Your task to perform on an android device: Open location settings Image 0: 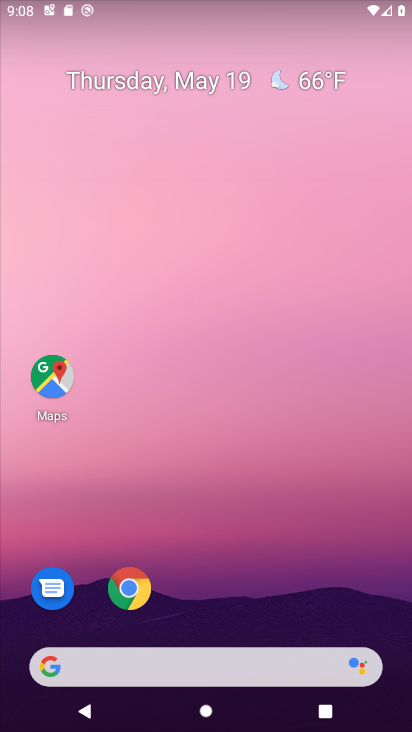
Step 0: drag from (372, 606) to (365, 275)
Your task to perform on an android device: Open location settings Image 1: 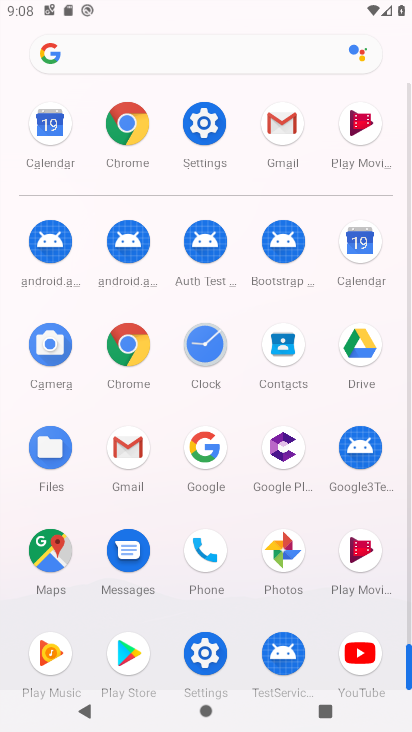
Step 1: drag from (239, 607) to (227, 455)
Your task to perform on an android device: Open location settings Image 2: 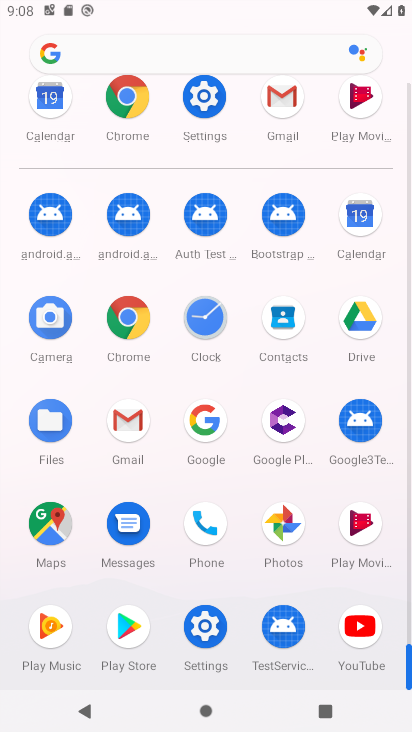
Step 2: click (219, 629)
Your task to perform on an android device: Open location settings Image 3: 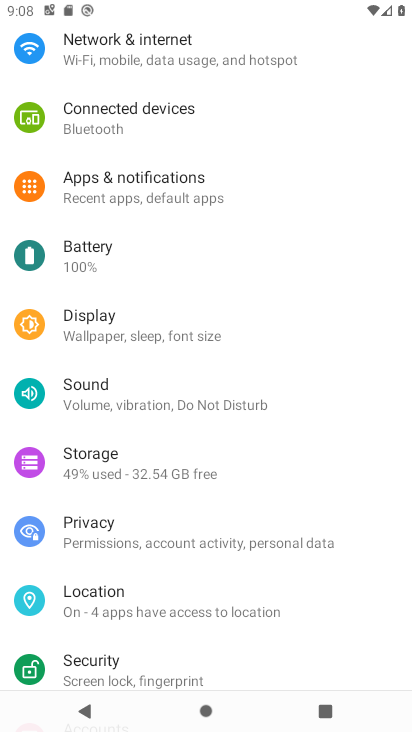
Step 3: drag from (359, 350) to (340, 447)
Your task to perform on an android device: Open location settings Image 4: 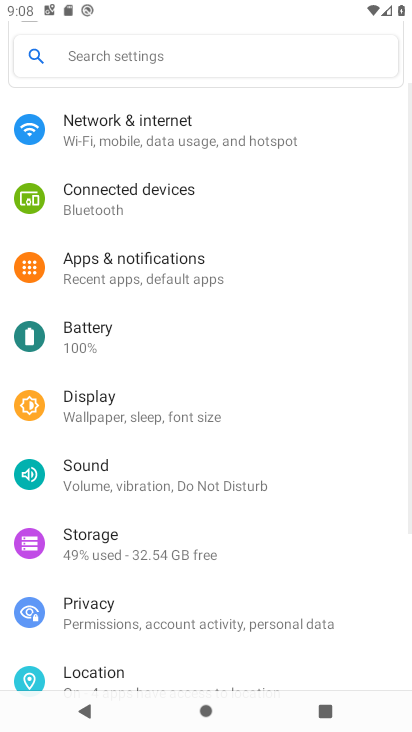
Step 4: drag from (340, 294) to (333, 418)
Your task to perform on an android device: Open location settings Image 5: 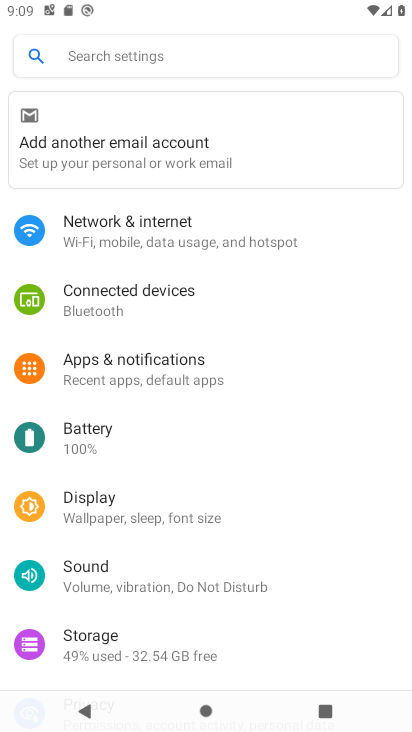
Step 5: drag from (343, 262) to (329, 416)
Your task to perform on an android device: Open location settings Image 6: 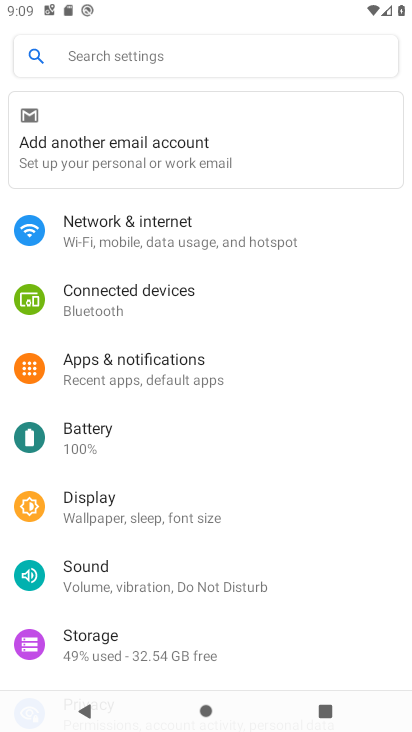
Step 6: drag from (346, 523) to (344, 421)
Your task to perform on an android device: Open location settings Image 7: 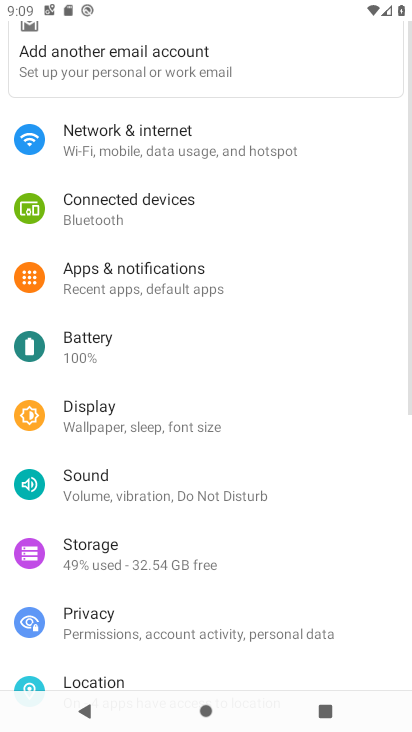
Step 7: drag from (343, 587) to (352, 460)
Your task to perform on an android device: Open location settings Image 8: 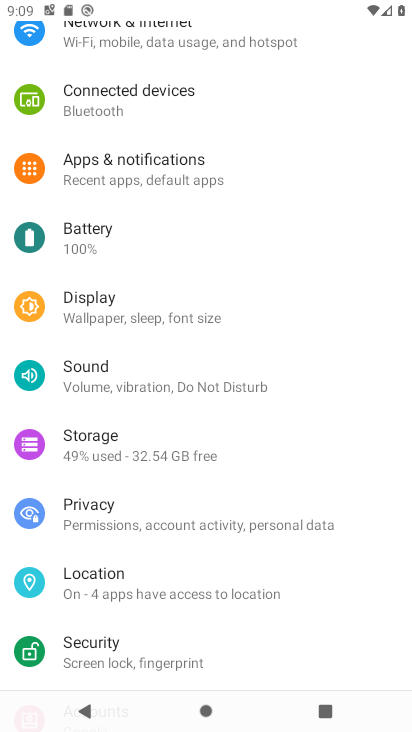
Step 8: drag from (371, 633) to (375, 497)
Your task to perform on an android device: Open location settings Image 9: 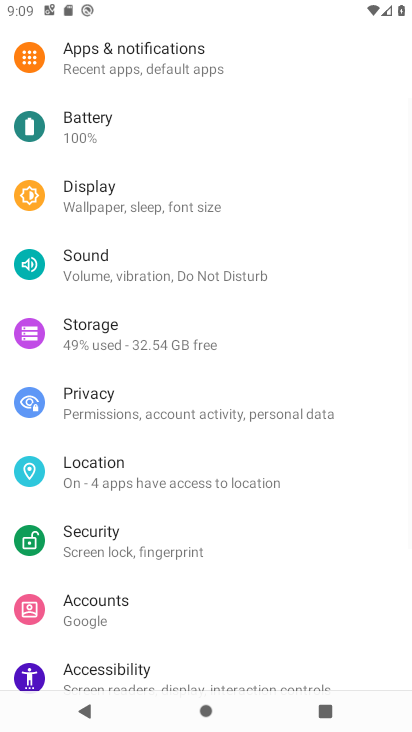
Step 9: drag from (358, 624) to (349, 507)
Your task to perform on an android device: Open location settings Image 10: 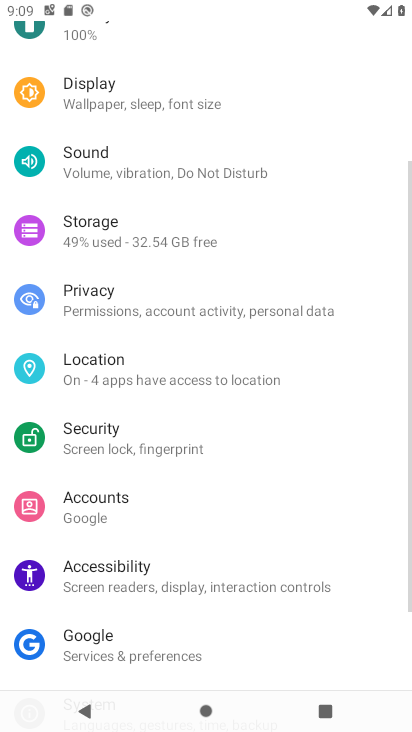
Step 10: drag from (346, 631) to (363, 505)
Your task to perform on an android device: Open location settings Image 11: 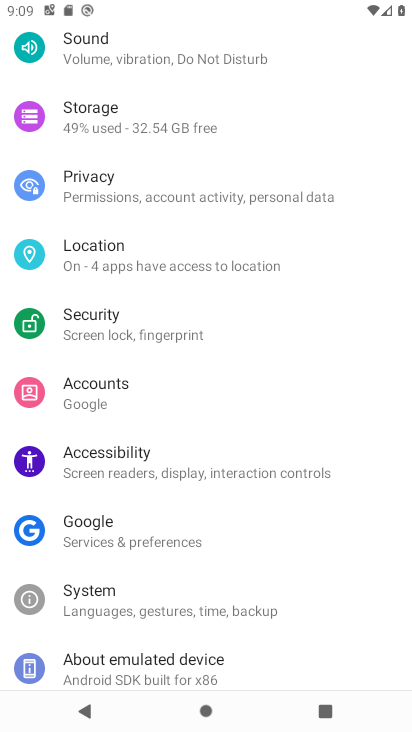
Step 11: drag from (371, 617) to (367, 496)
Your task to perform on an android device: Open location settings Image 12: 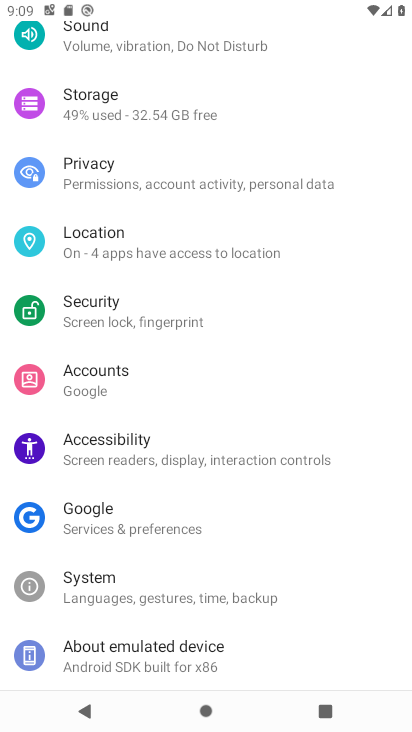
Step 12: drag from (349, 381) to (345, 526)
Your task to perform on an android device: Open location settings Image 13: 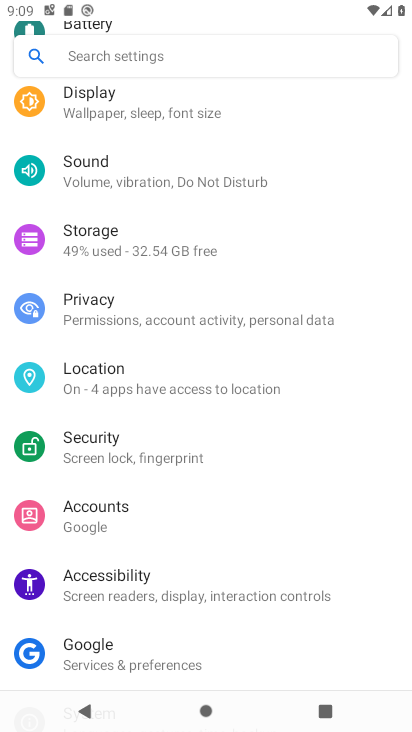
Step 13: click (275, 368)
Your task to perform on an android device: Open location settings Image 14: 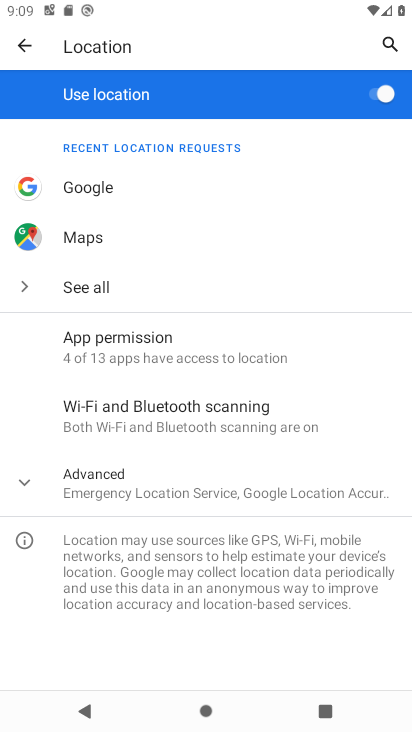
Step 14: task complete